Your task to perform on an android device: Do I have any events tomorrow? Image 0: 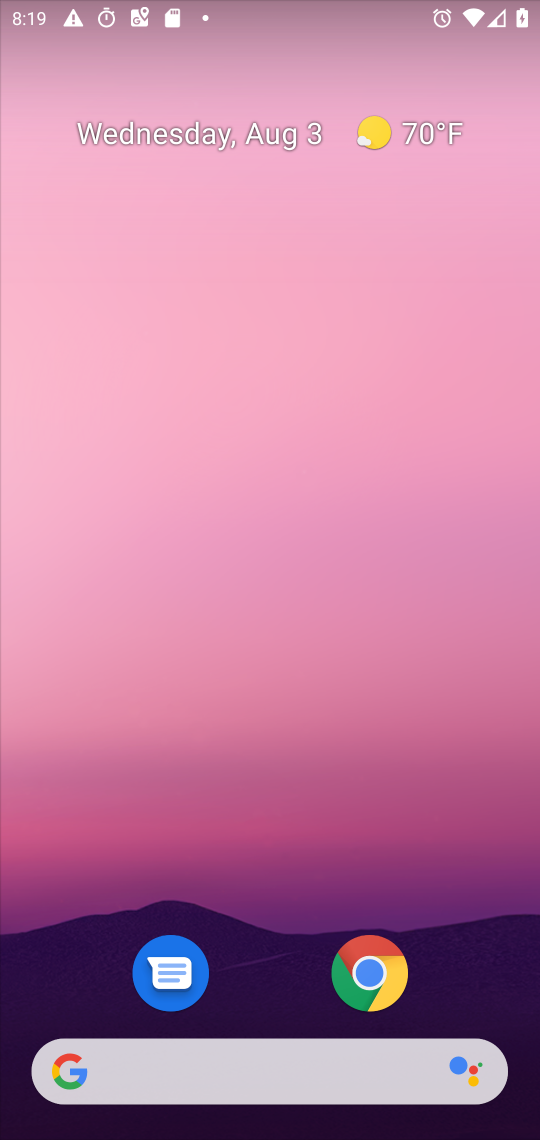
Step 0: press home button
Your task to perform on an android device: Do I have any events tomorrow? Image 1: 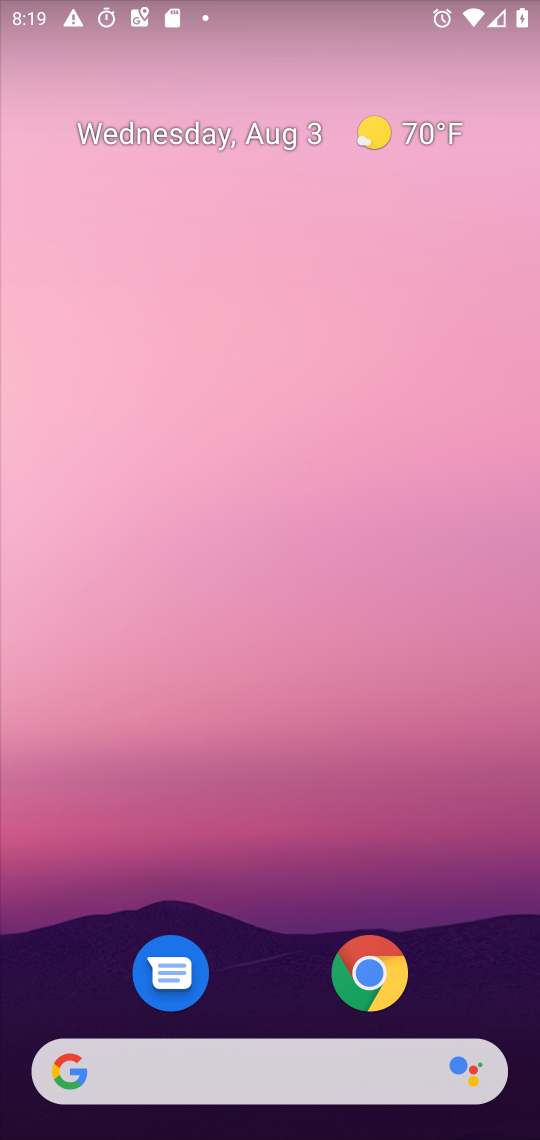
Step 1: drag from (269, 928) to (303, 36)
Your task to perform on an android device: Do I have any events tomorrow? Image 2: 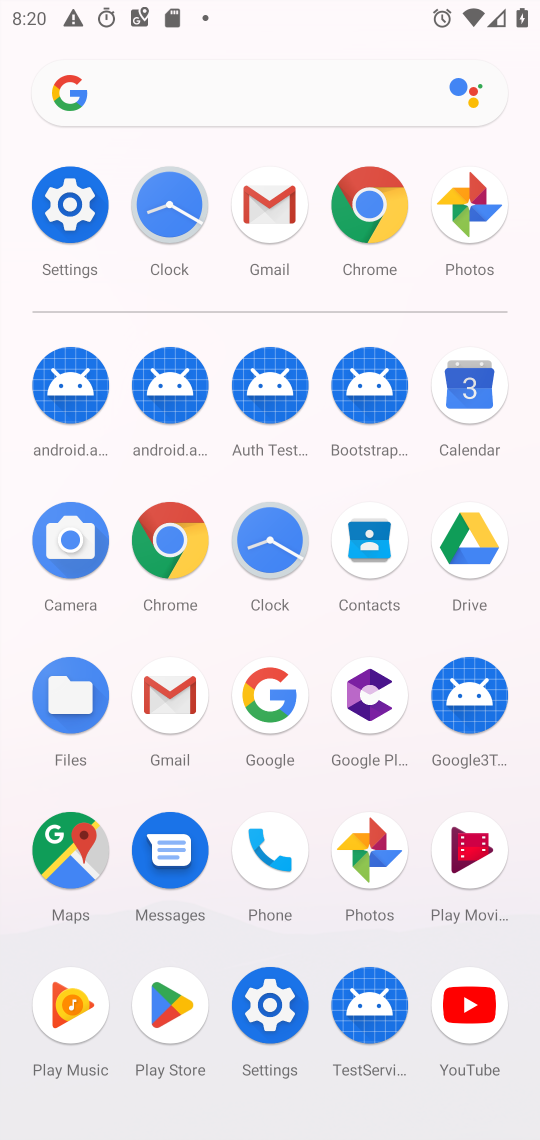
Step 2: click (470, 390)
Your task to perform on an android device: Do I have any events tomorrow? Image 3: 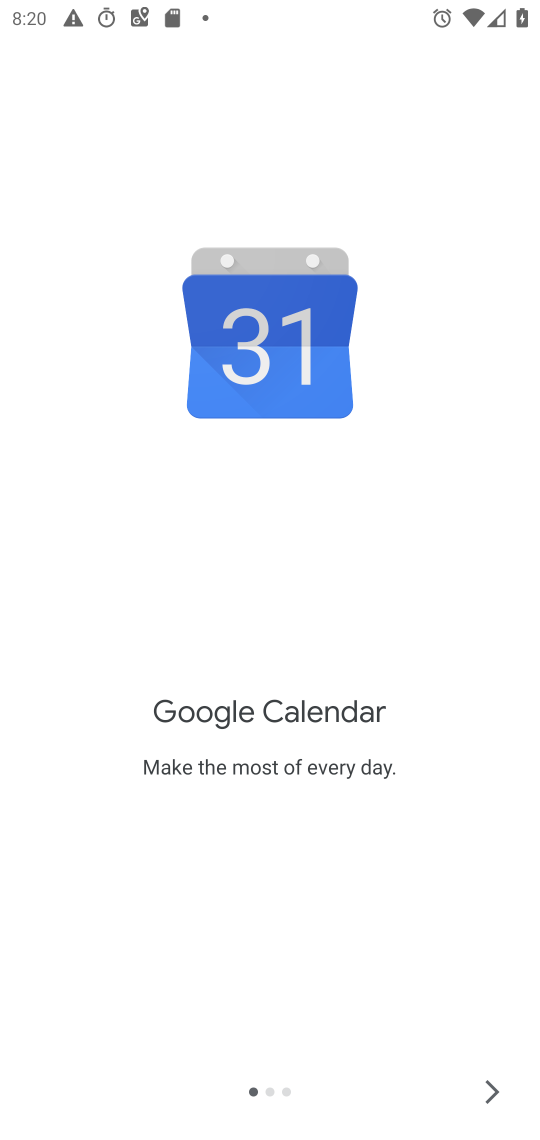
Step 3: click (479, 1104)
Your task to perform on an android device: Do I have any events tomorrow? Image 4: 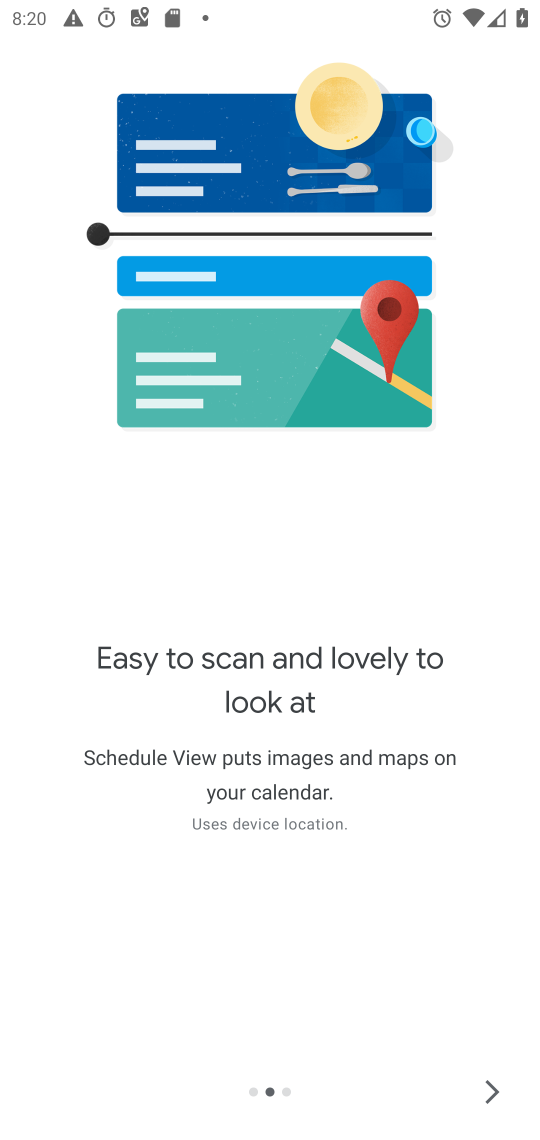
Step 4: click (485, 1077)
Your task to perform on an android device: Do I have any events tomorrow? Image 5: 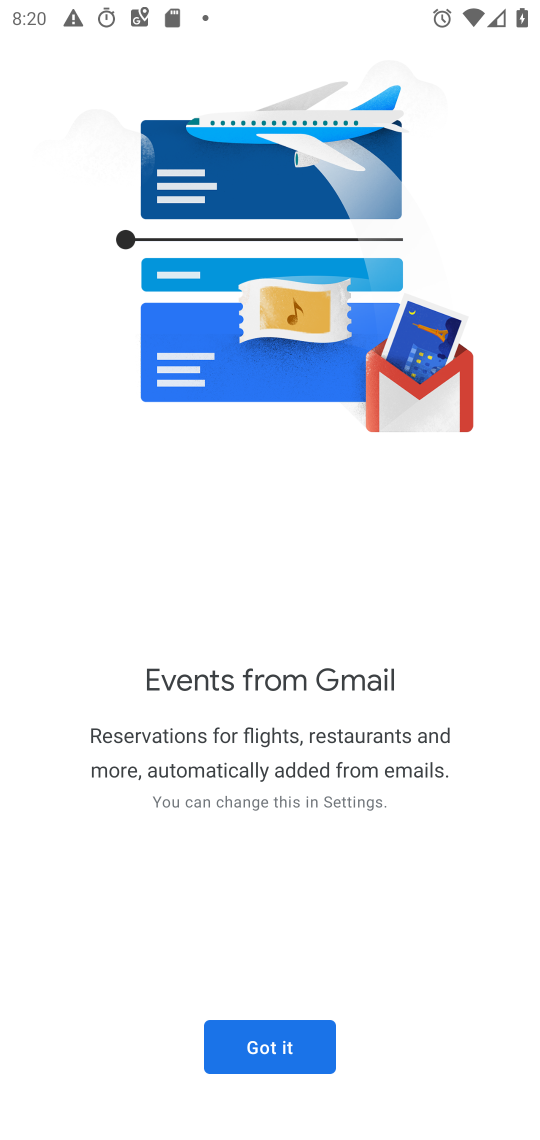
Step 5: click (298, 1035)
Your task to perform on an android device: Do I have any events tomorrow? Image 6: 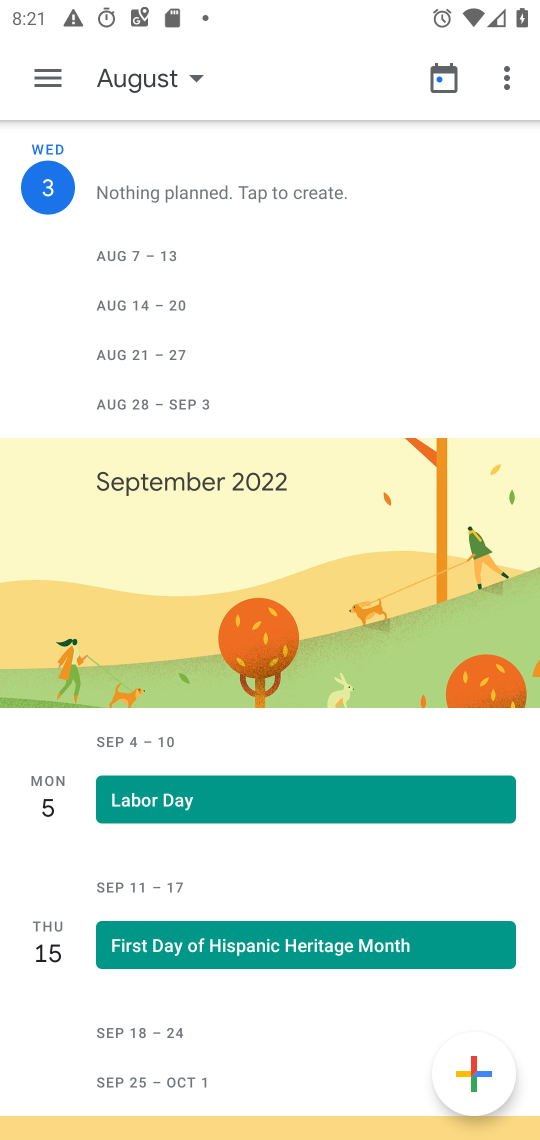
Step 6: click (39, 75)
Your task to perform on an android device: Do I have any events tomorrow? Image 7: 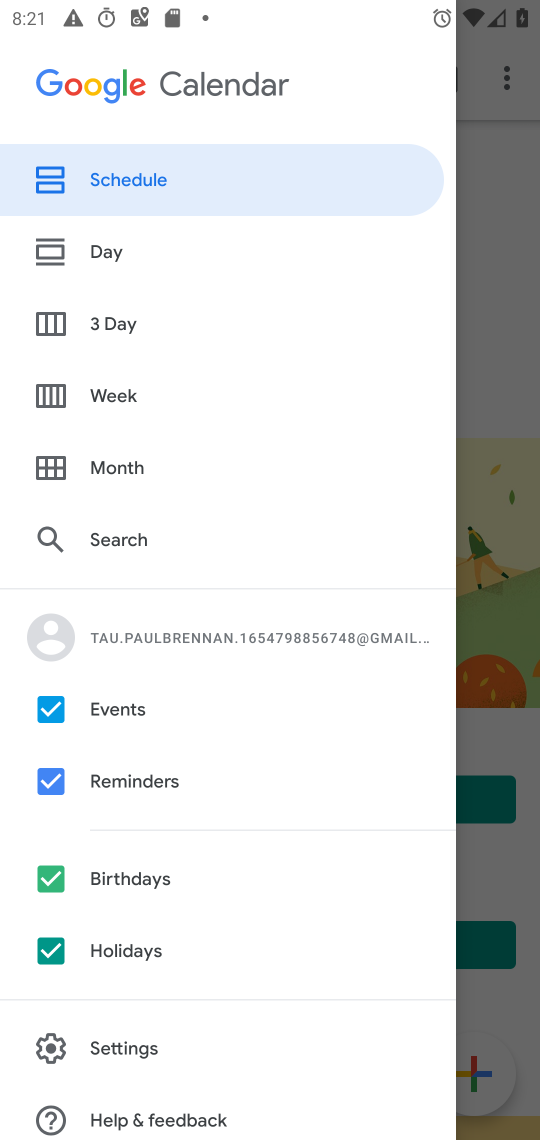
Step 7: click (43, 777)
Your task to perform on an android device: Do I have any events tomorrow? Image 8: 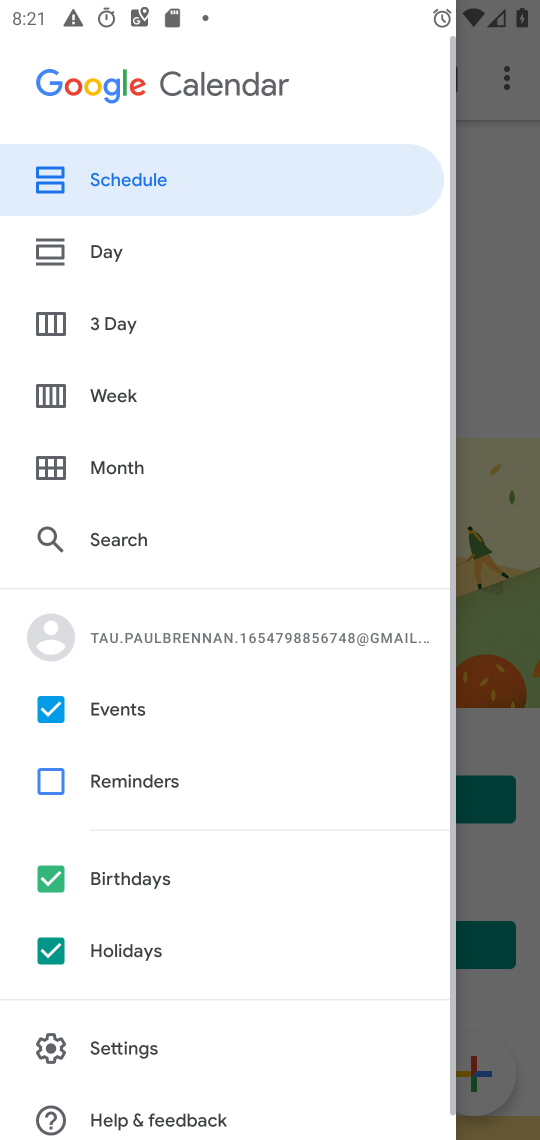
Step 8: click (47, 870)
Your task to perform on an android device: Do I have any events tomorrow? Image 9: 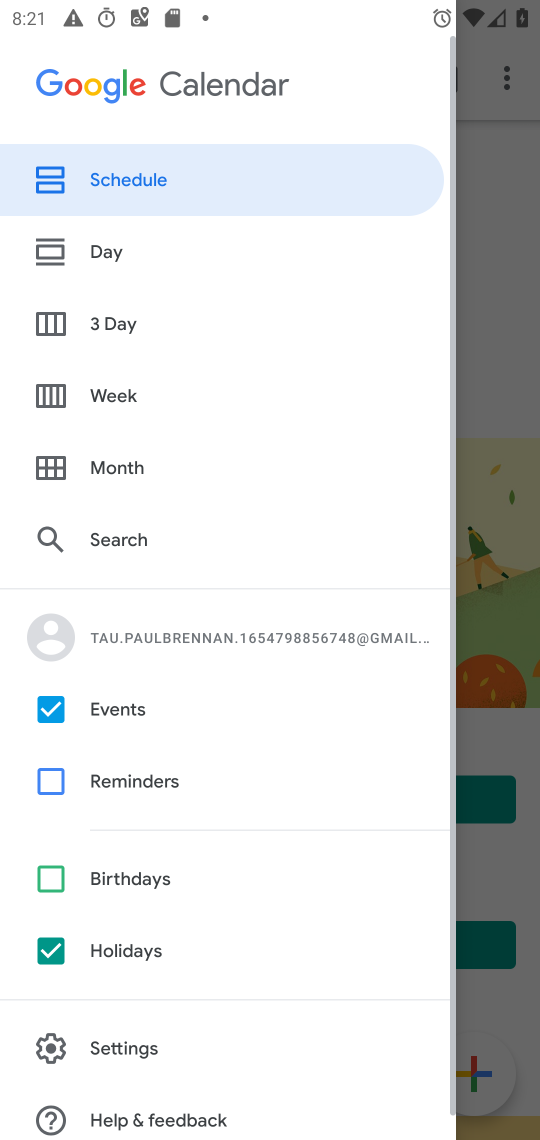
Step 9: click (54, 944)
Your task to perform on an android device: Do I have any events tomorrow? Image 10: 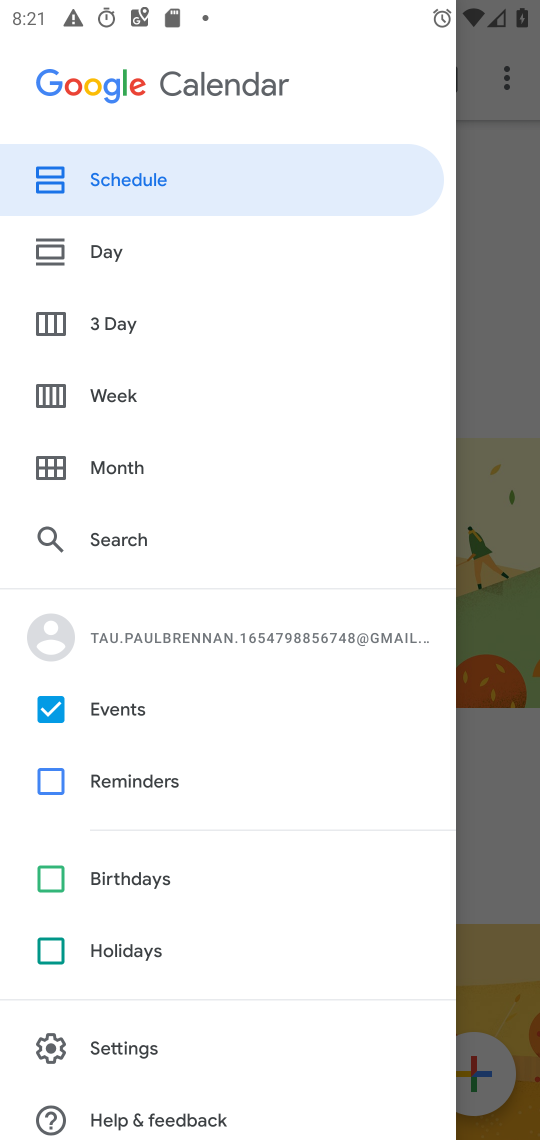
Step 10: click (71, 249)
Your task to perform on an android device: Do I have any events tomorrow? Image 11: 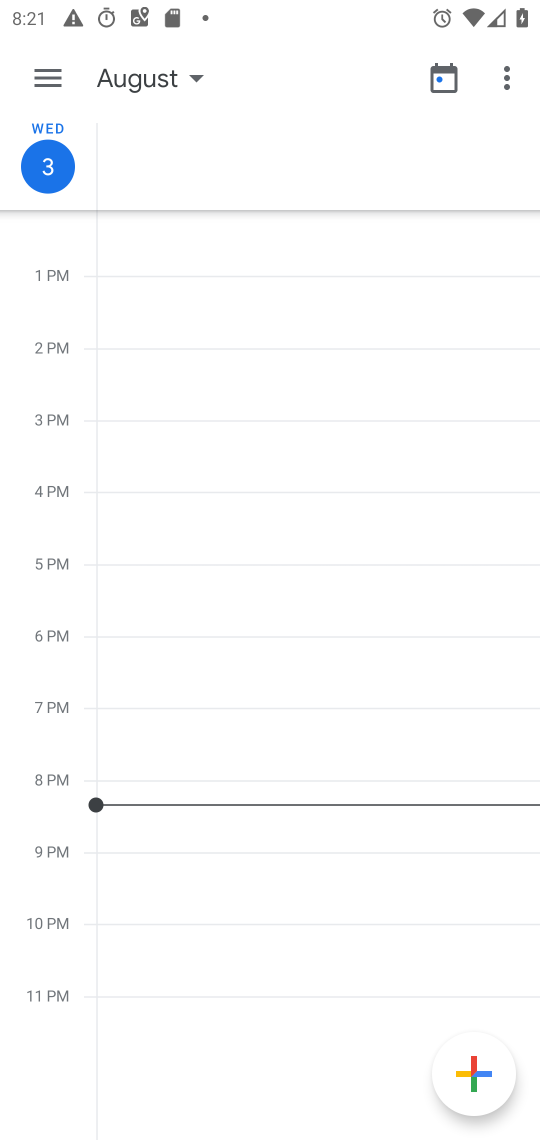
Step 11: click (197, 70)
Your task to perform on an android device: Do I have any events tomorrow? Image 12: 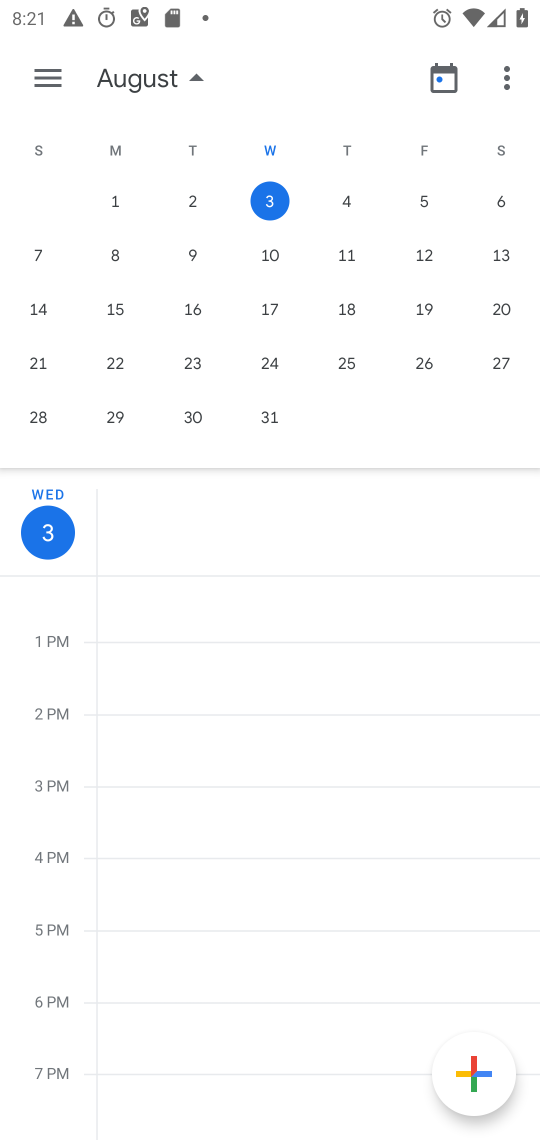
Step 12: click (343, 206)
Your task to perform on an android device: Do I have any events tomorrow? Image 13: 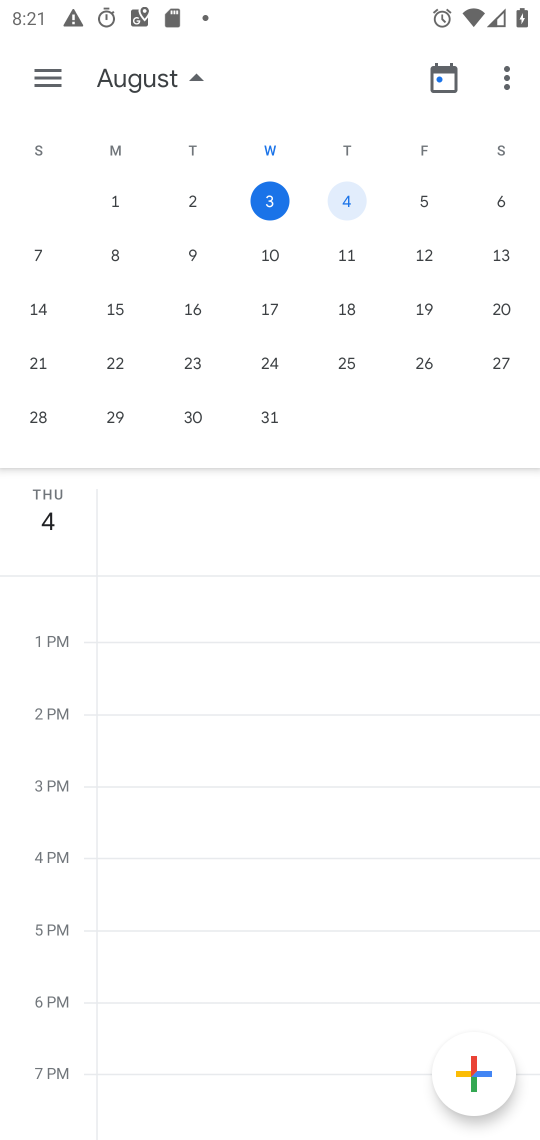
Step 13: click (202, 78)
Your task to perform on an android device: Do I have any events tomorrow? Image 14: 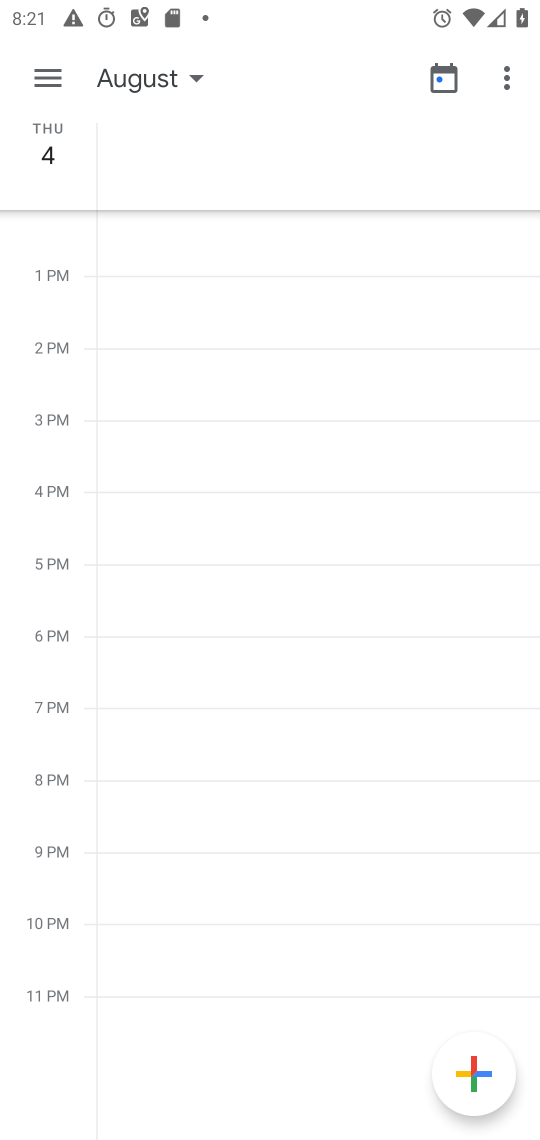
Step 14: task complete